Your task to perform on an android device: open a bookmark in the chrome app Image 0: 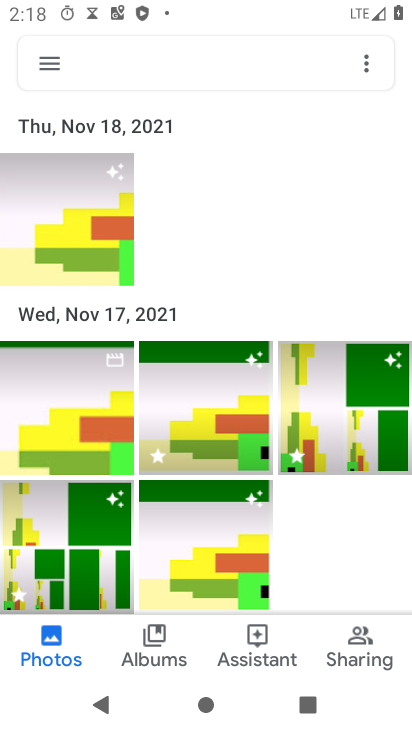
Step 0: press home button
Your task to perform on an android device: open a bookmark in the chrome app Image 1: 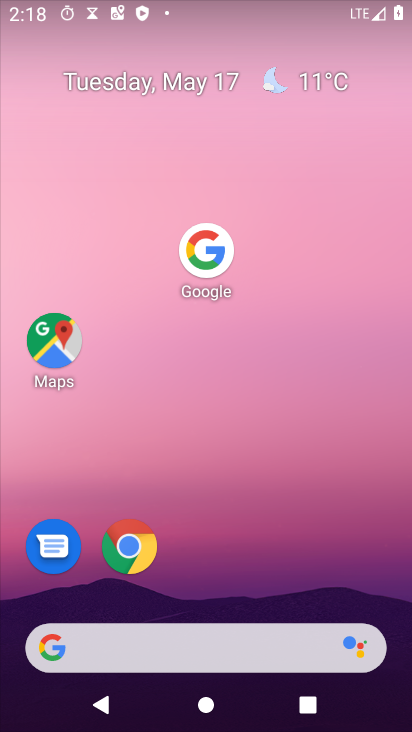
Step 1: click (145, 557)
Your task to perform on an android device: open a bookmark in the chrome app Image 2: 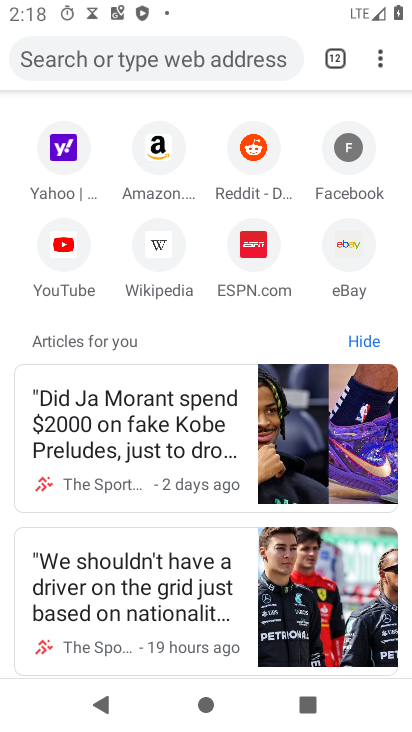
Step 2: task complete